Your task to perform on an android device: turn off improve location accuracy Image 0: 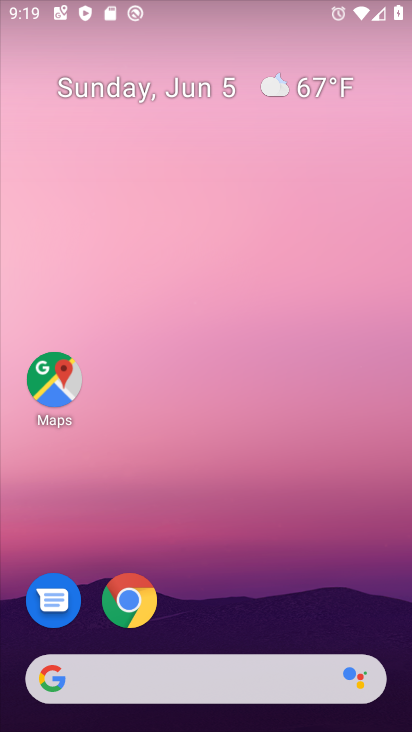
Step 0: drag from (391, 618) to (344, 384)
Your task to perform on an android device: turn off improve location accuracy Image 1: 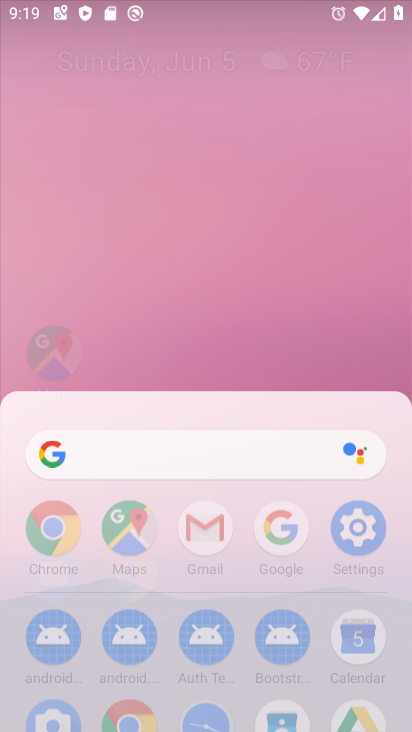
Step 1: drag from (243, 70) to (224, 30)
Your task to perform on an android device: turn off improve location accuracy Image 2: 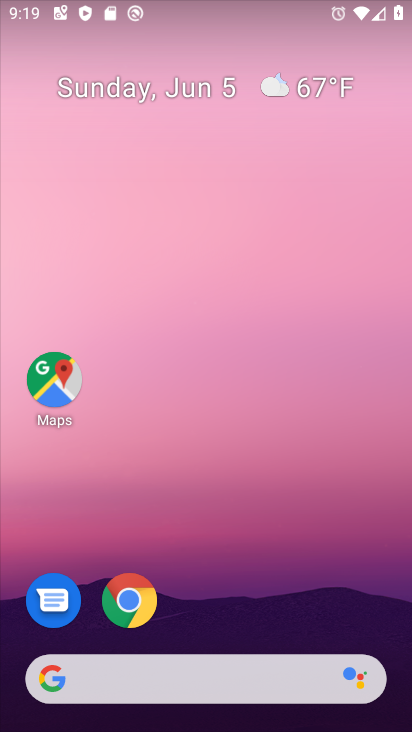
Step 2: drag from (364, 211) to (330, 66)
Your task to perform on an android device: turn off improve location accuracy Image 3: 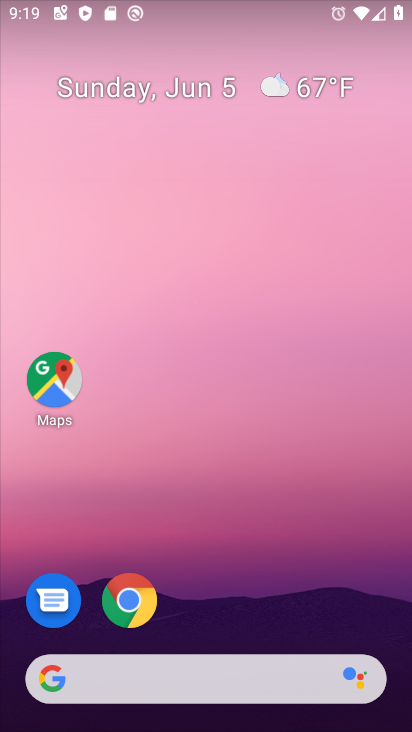
Step 3: click (403, 659)
Your task to perform on an android device: turn off improve location accuracy Image 4: 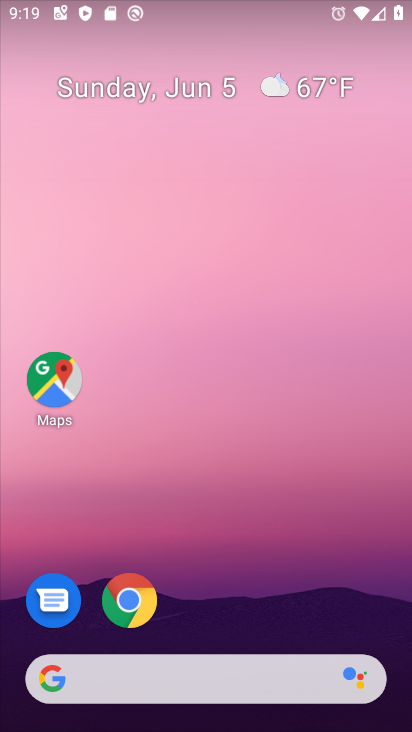
Step 4: click (336, 20)
Your task to perform on an android device: turn off improve location accuracy Image 5: 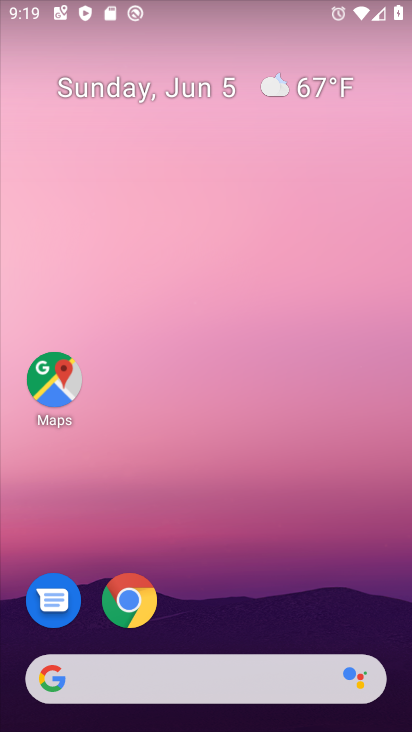
Step 5: drag from (349, 614) to (299, 52)
Your task to perform on an android device: turn off improve location accuracy Image 6: 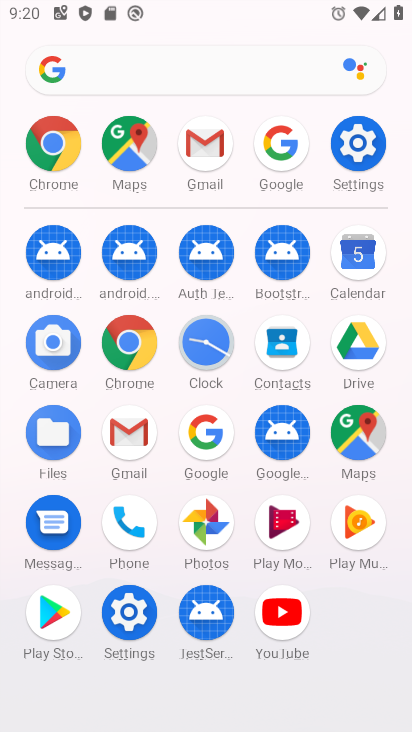
Step 6: click (129, 605)
Your task to perform on an android device: turn off improve location accuracy Image 7: 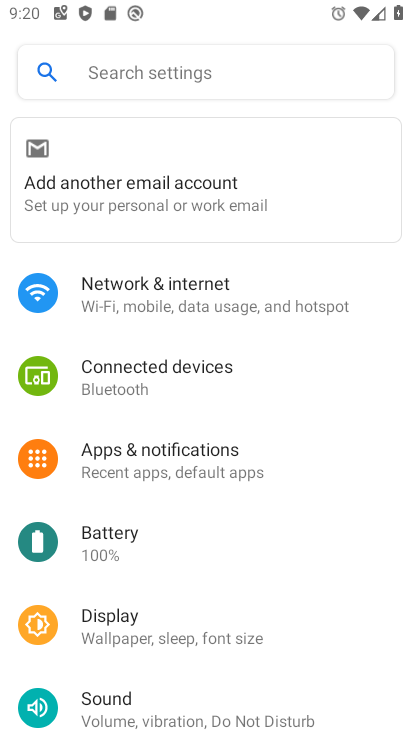
Step 7: drag from (74, 628) to (214, 203)
Your task to perform on an android device: turn off improve location accuracy Image 8: 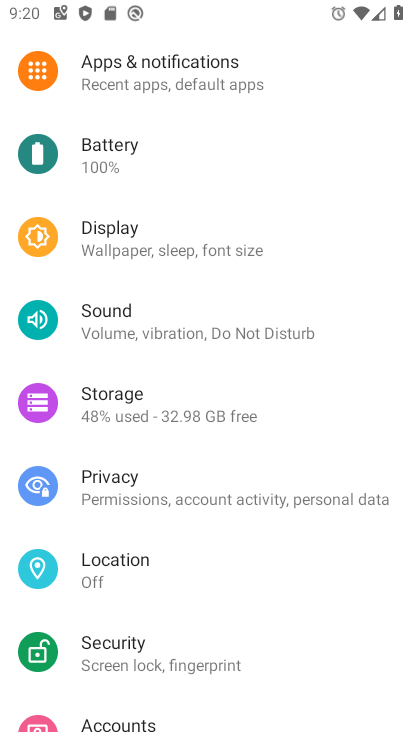
Step 8: click (163, 568)
Your task to perform on an android device: turn off improve location accuracy Image 9: 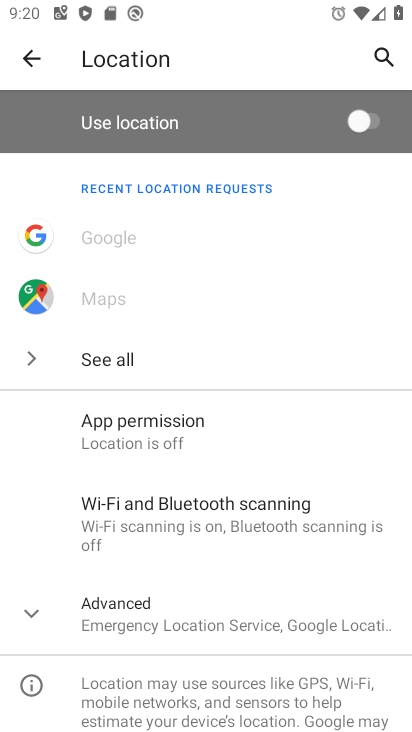
Step 9: click (174, 605)
Your task to perform on an android device: turn off improve location accuracy Image 10: 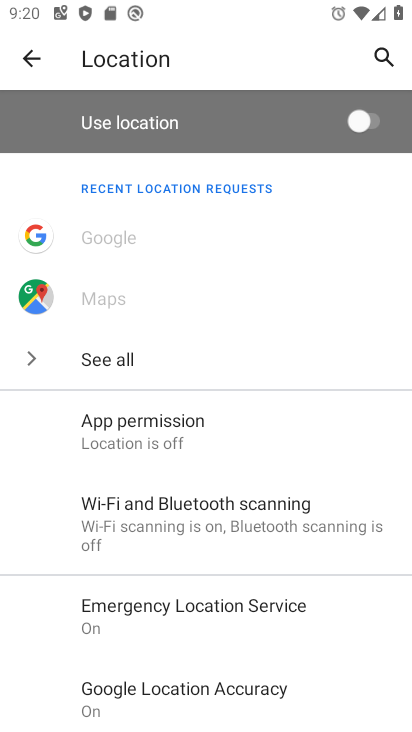
Step 10: click (256, 687)
Your task to perform on an android device: turn off improve location accuracy Image 11: 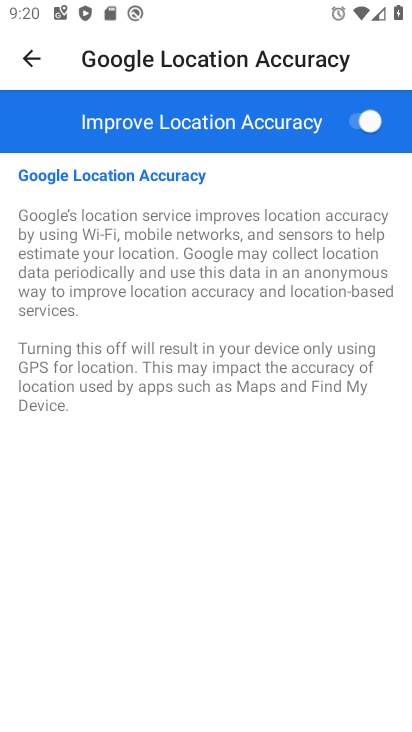
Step 11: click (358, 123)
Your task to perform on an android device: turn off improve location accuracy Image 12: 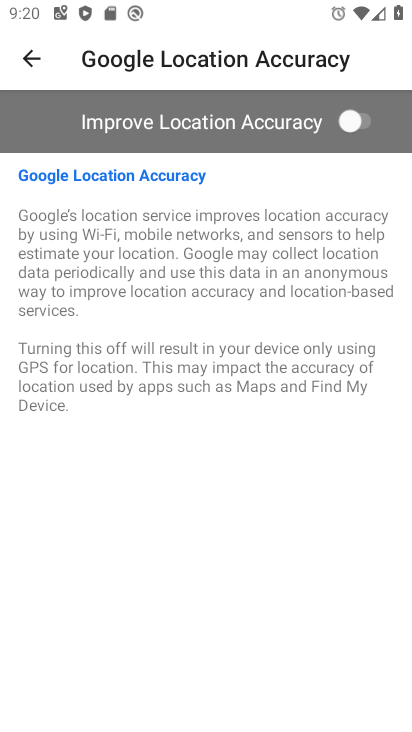
Step 12: task complete